Your task to perform on an android device: open device folders in google photos Image 0: 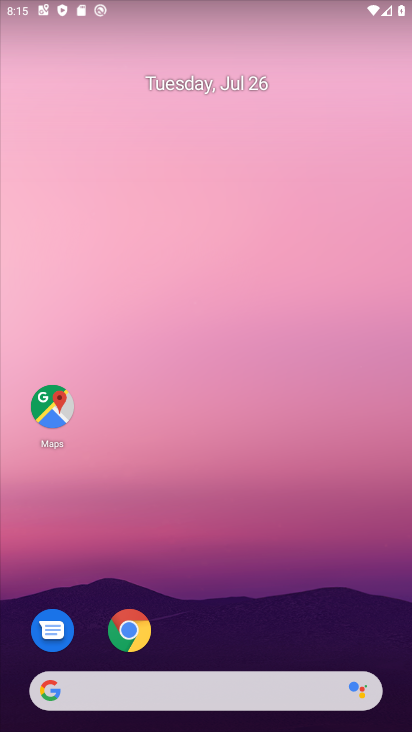
Step 0: drag from (308, 650) to (263, 16)
Your task to perform on an android device: open device folders in google photos Image 1: 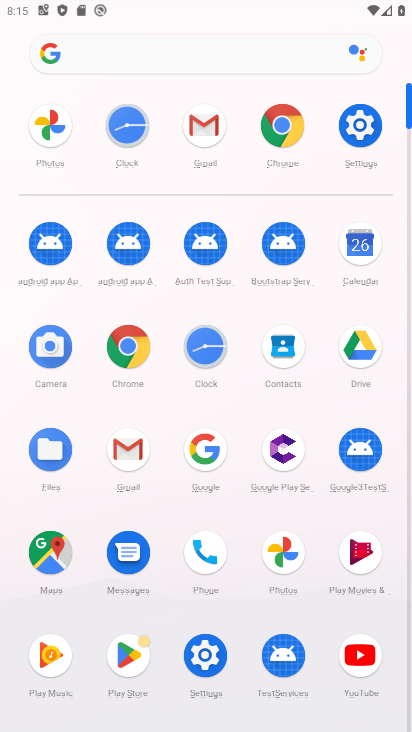
Step 1: click (43, 128)
Your task to perform on an android device: open device folders in google photos Image 2: 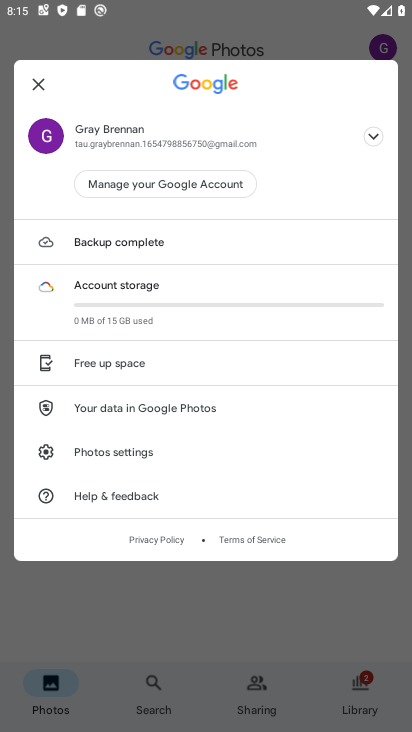
Step 2: click (35, 88)
Your task to perform on an android device: open device folders in google photos Image 3: 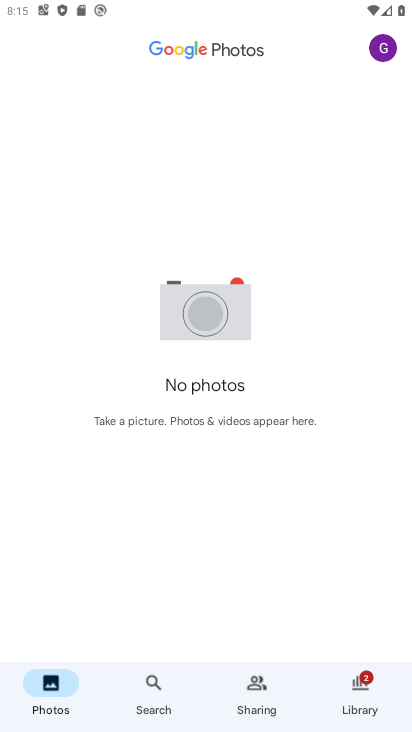
Step 3: task complete